Your task to perform on an android device: Open eBay Image 0: 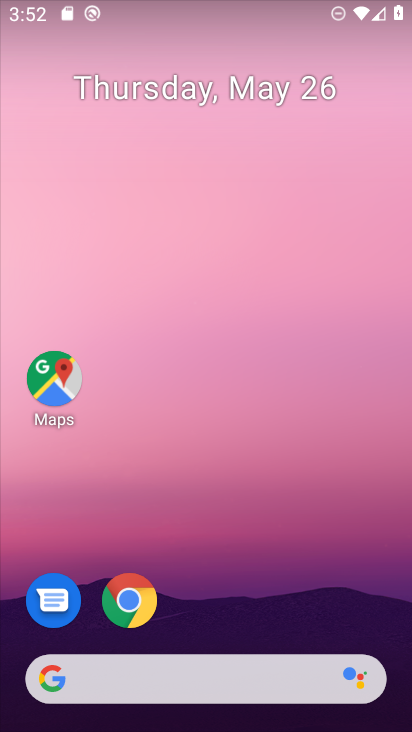
Step 0: drag from (237, 552) to (148, 25)
Your task to perform on an android device: Open eBay Image 1: 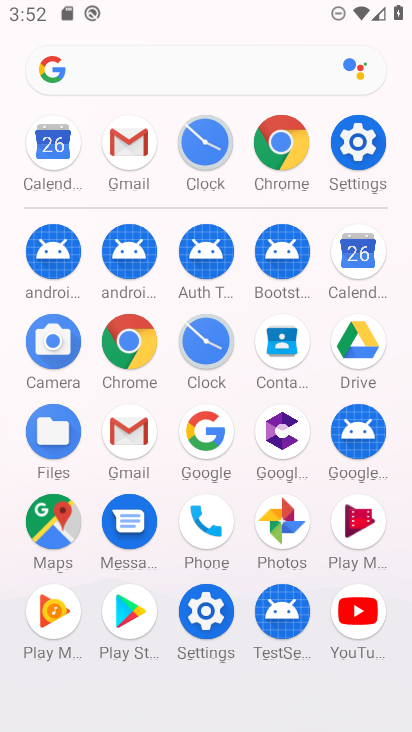
Step 1: click (129, 334)
Your task to perform on an android device: Open eBay Image 2: 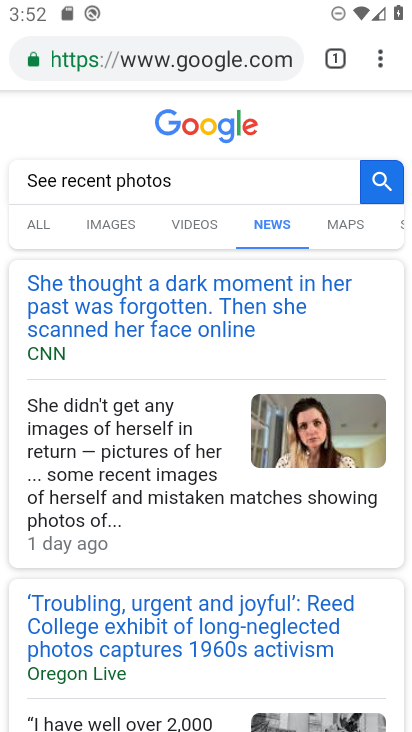
Step 2: click (177, 54)
Your task to perform on an android device: Open eBay Image 3: 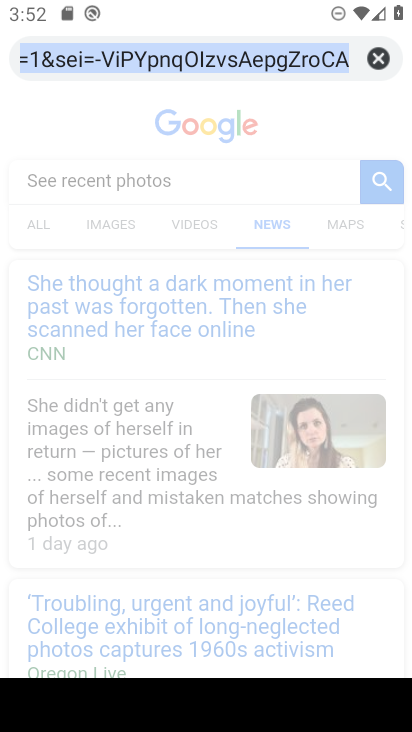
Step 3: click (378, 64)
Your task to perform on an android device: Open eBay Image 4: 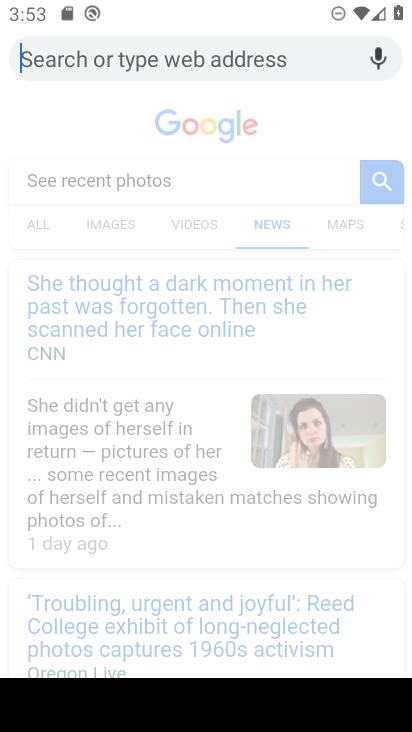
Step 4: type "eBay"
Your task to perform on an android device: Open eBay Image 5: 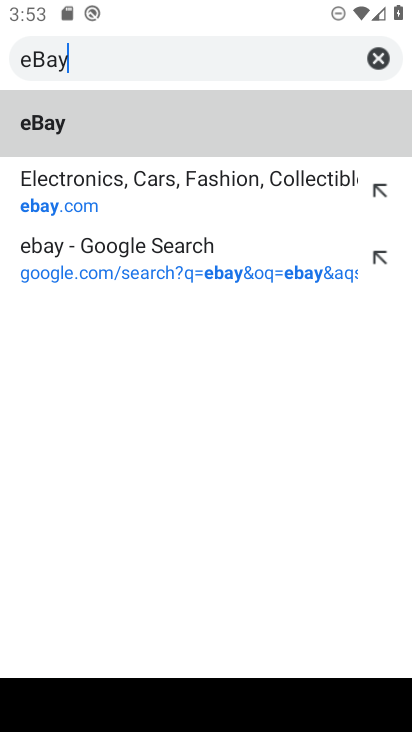
Step 5: type ""
Your task to perform on an android device: Open eBay Image 6: 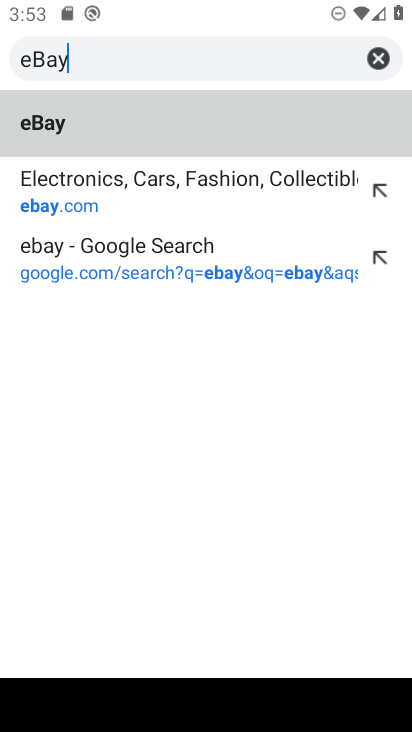
Step 6: click (120, 183)
Your task to perform on an android device: Open eBay Image 7: 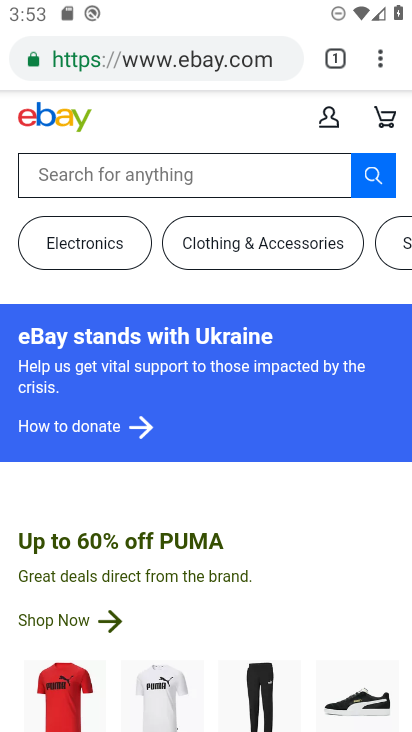
Step 7: task complete